Your task to perform on an android device: turn on location history Image 0: 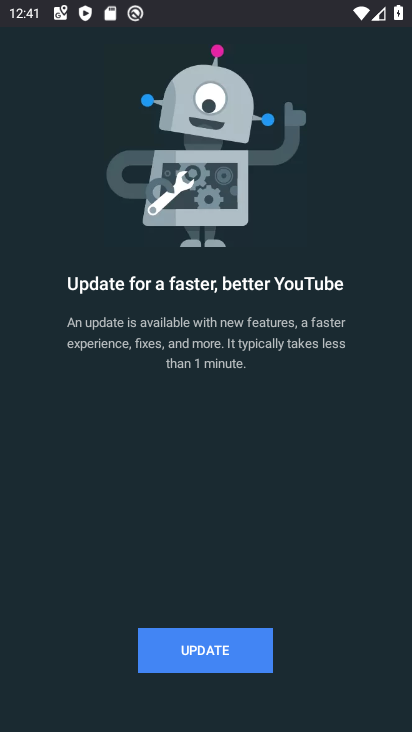
Step 0: drag from (362, 627) to (409, 403)
Your task to perform on an android device: turn on location history Image 1: 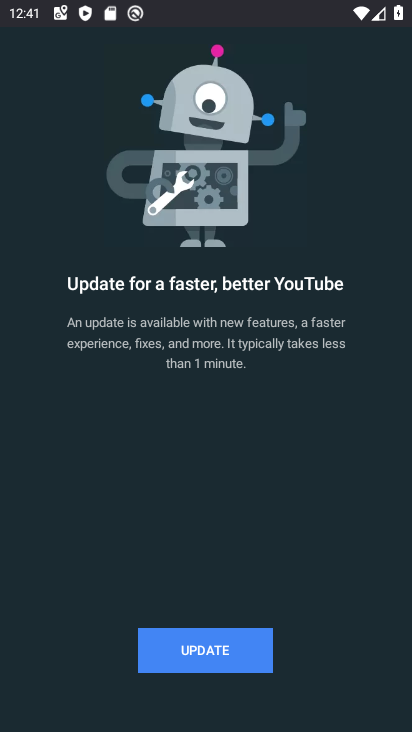
Step 1: press home button
Your task to perform on an android device: turn on location history Image 2: 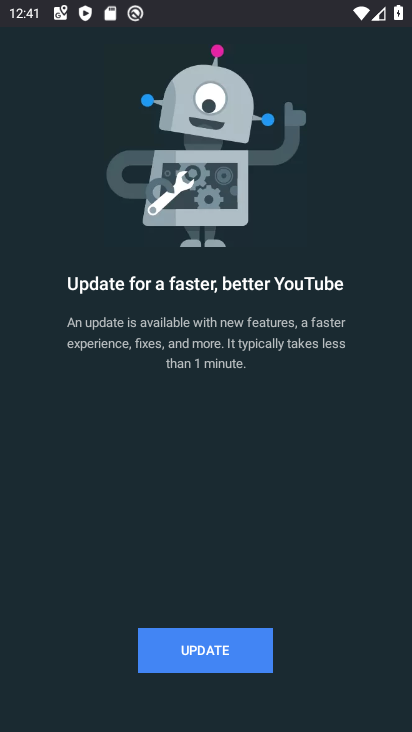
Step 2: click (409, 381)
Your task to perform on an android device: turn on location history Image 3: 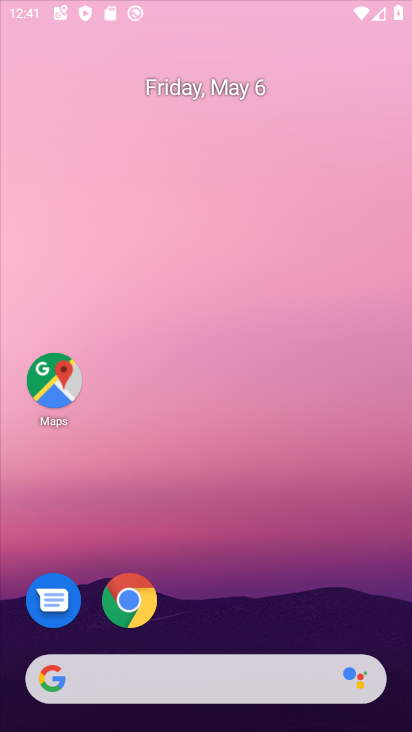
Step 3: drag from (355, 663) to (357, 86)
Your task to perform on an android device: turn on location history Image 4: 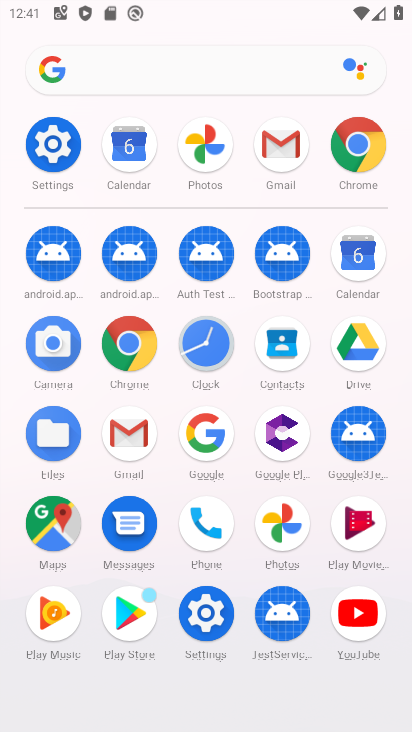
Step 4: click (58, 150)
Your task to perform on an android device: turn on location history Image 5: 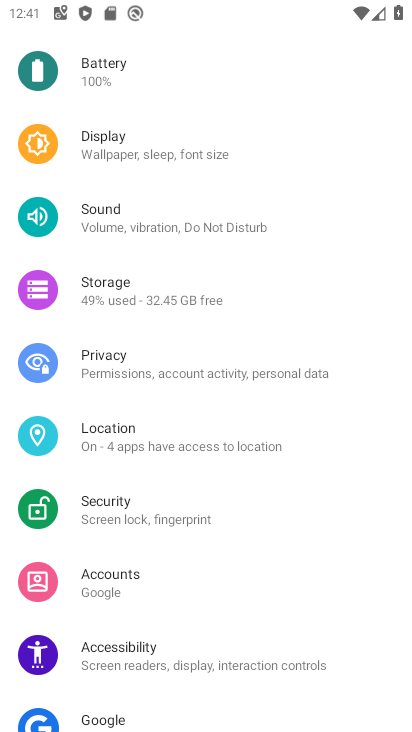
Step 5: click (186, 435)
Your task to perform on an android device: turn on location history Image 6: 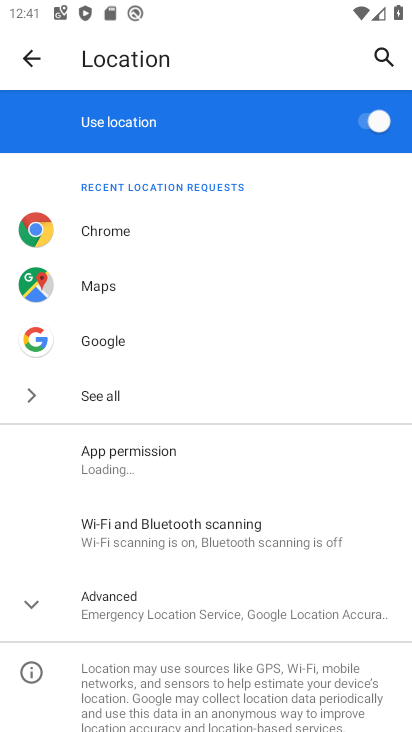
Step 6: click (62, 606)
Your task to perform on an android device: turn on location history Image 7: 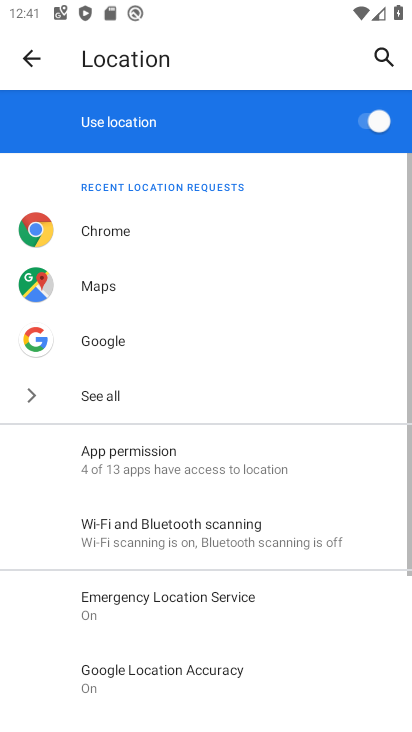
Step 7: drag from (63, 607) to (227, 243)
Your task to perform on an android device: turn on location history Image 8: 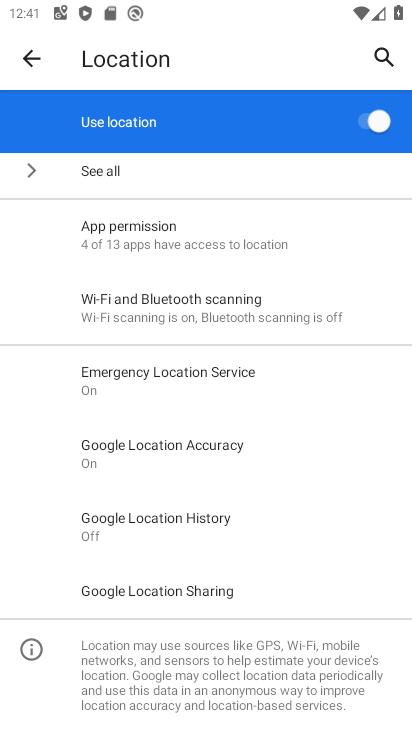
Step 8: click (162, 519)
Your task to perform on an android device: turn on location history Image 9: 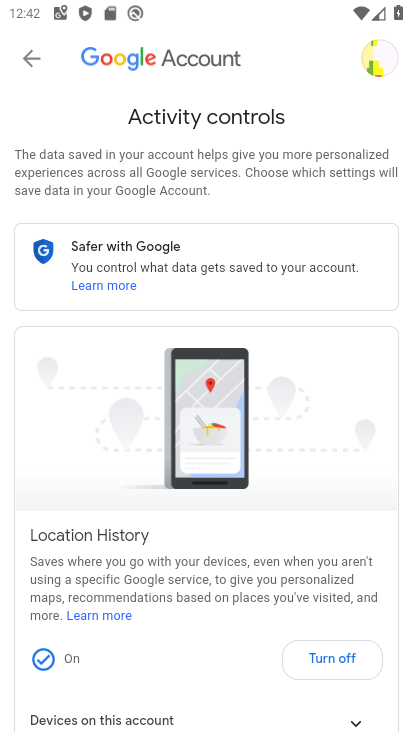
Step 9: click (357, 651)
Your task to perform on an android device: turn on location history Image 10: 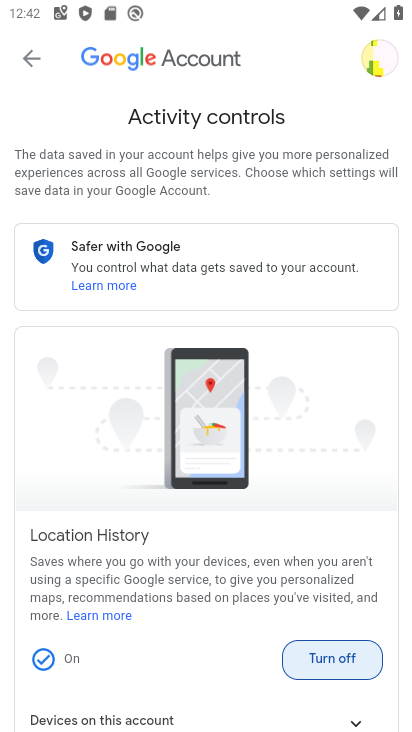
Step 10: drag from (298, 596) to (289, 288)
Your task to perform on an android device: turn on location history Image 11: 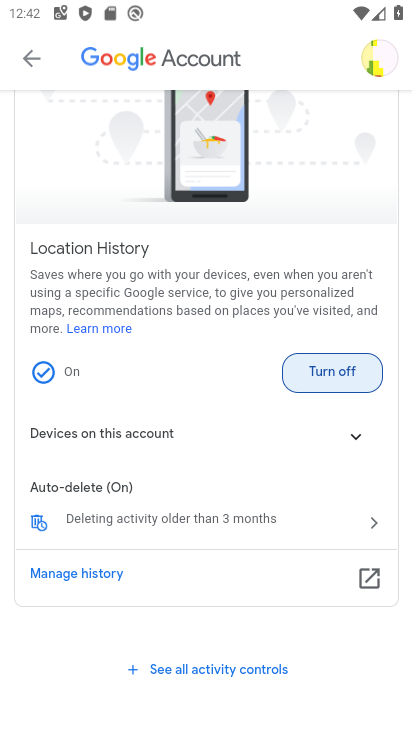
Step 11: click (326, 374)
Your task to perform on an android device: turn on location history Image 12: 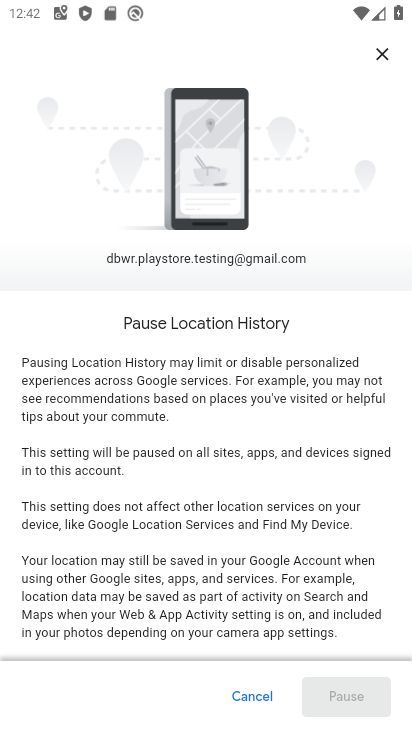
Step 12: task complete